Your task to perform on an android device: Go to Google maps Image 0: 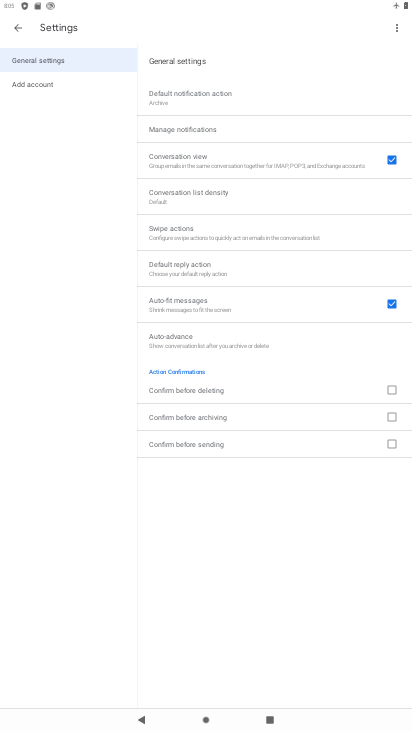
Step 0: press home button
Your task to perform on an android device: Go to Google maps Image 1: 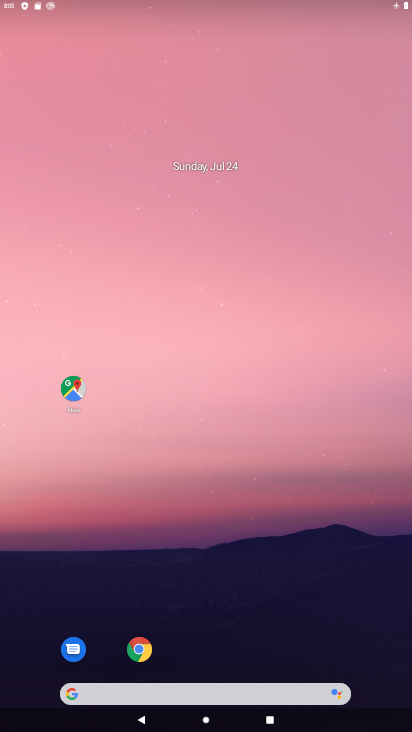
Step 1: drag from (196, 677) to (146, 161)
Your task to perform on an android device: Go to Google maps Image 2: 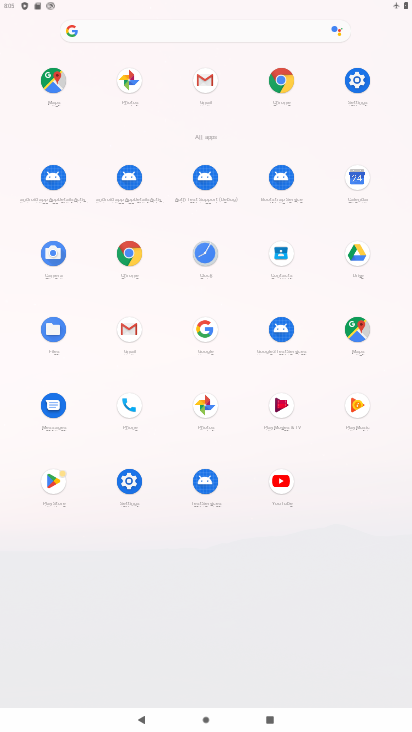
Step 2: click (357, 324)
Your task to perform on an android device: Go to Google maps Image 3: 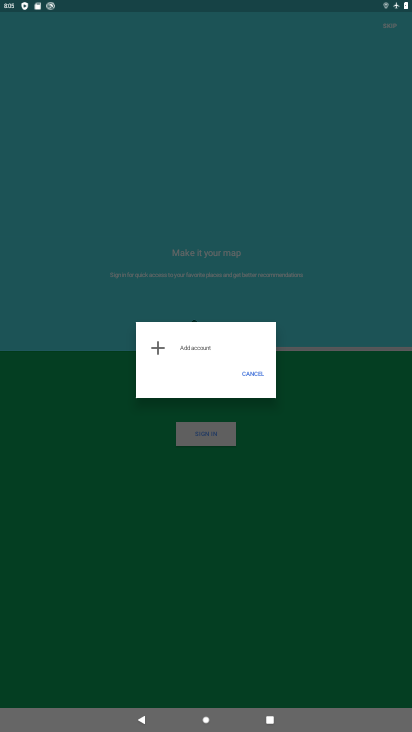
Step 3: press home button
Your task to perform on an android device: Go to Google maps Image 4: 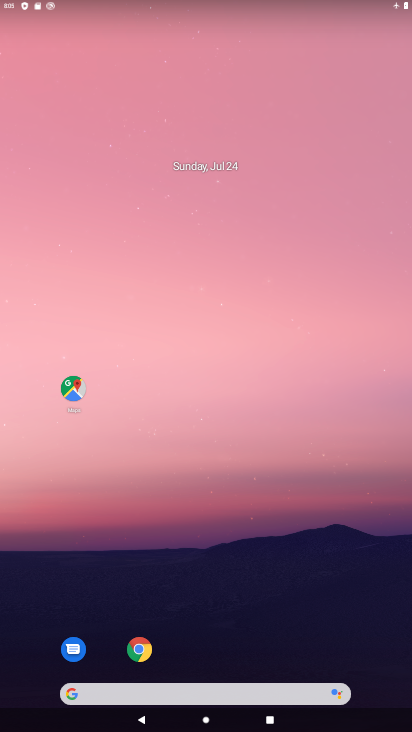
Step 4: drag from (212, 460) to (212, 88)
Your task to perform on an android device: Go to Google maps Image 5: 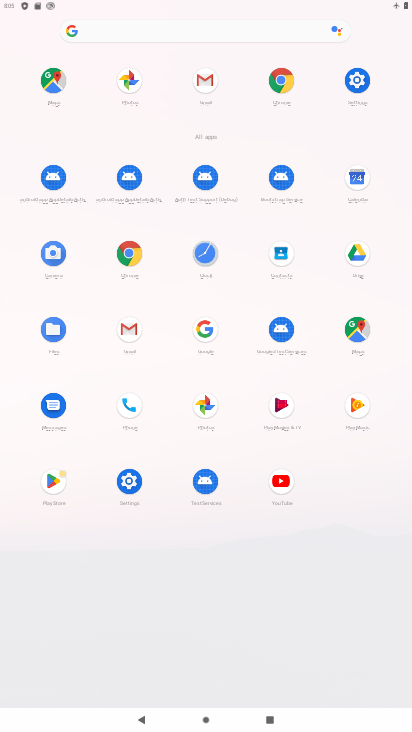
Step 5: click (358, 332)
Your task to perform on an android device: Go to Google maps Image 6: 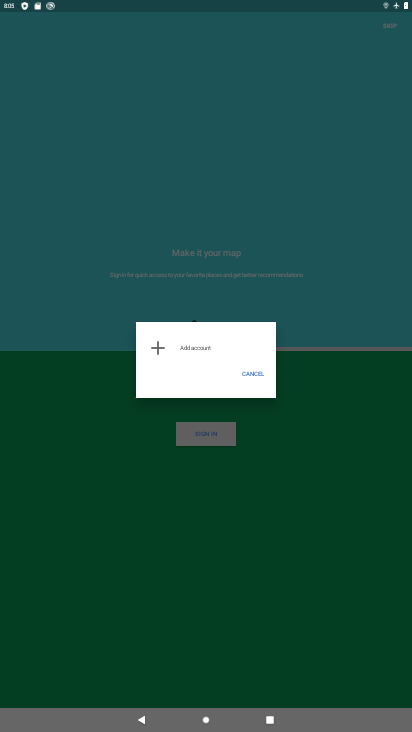
Step 6: task complete